Your task to perform on an android device: snooze an email in the gmail app Image 0: 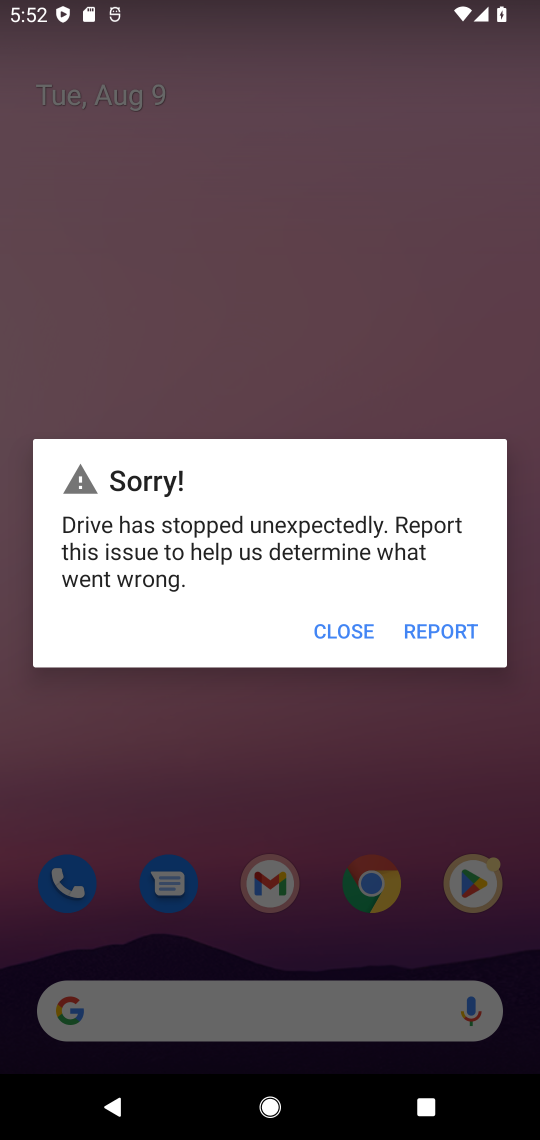
Step 0: click (345, 612)
Your task to perform on an android device: snooze an email in the gmail app Image 1: 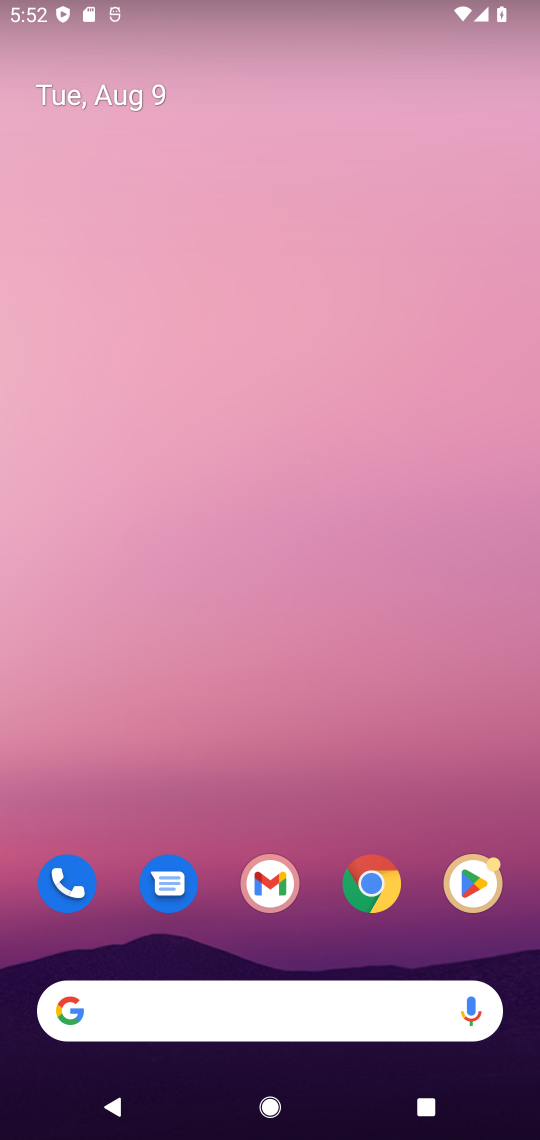
Step 1: click (263, 893)
Your task to perform on an android device: snooze an email in the gmail app Image 2: 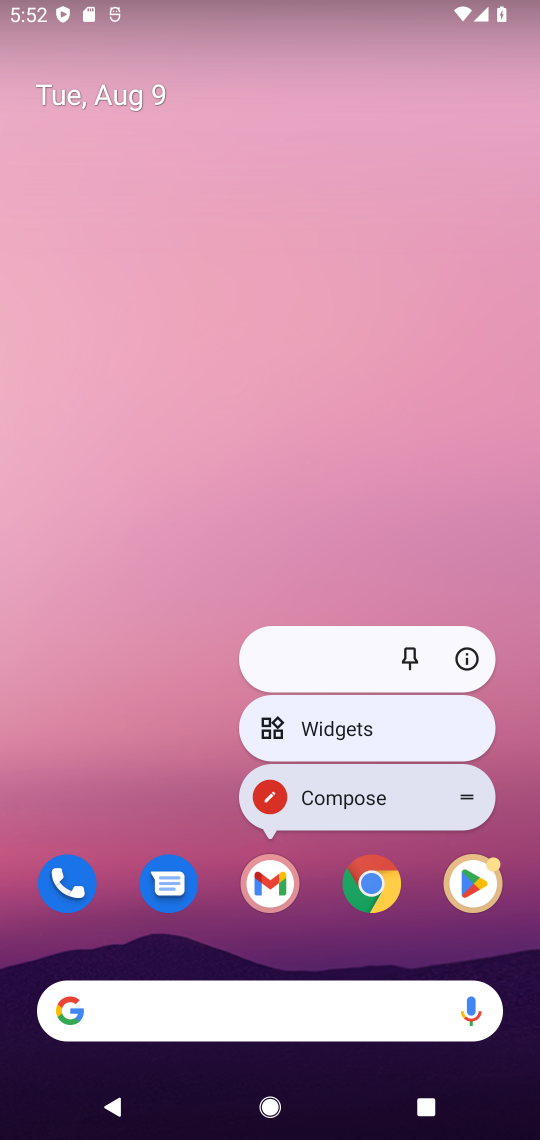
Step 2: click (253, 853)
Your task to perform on an android device: snooze an email in the gmail app Image 3: 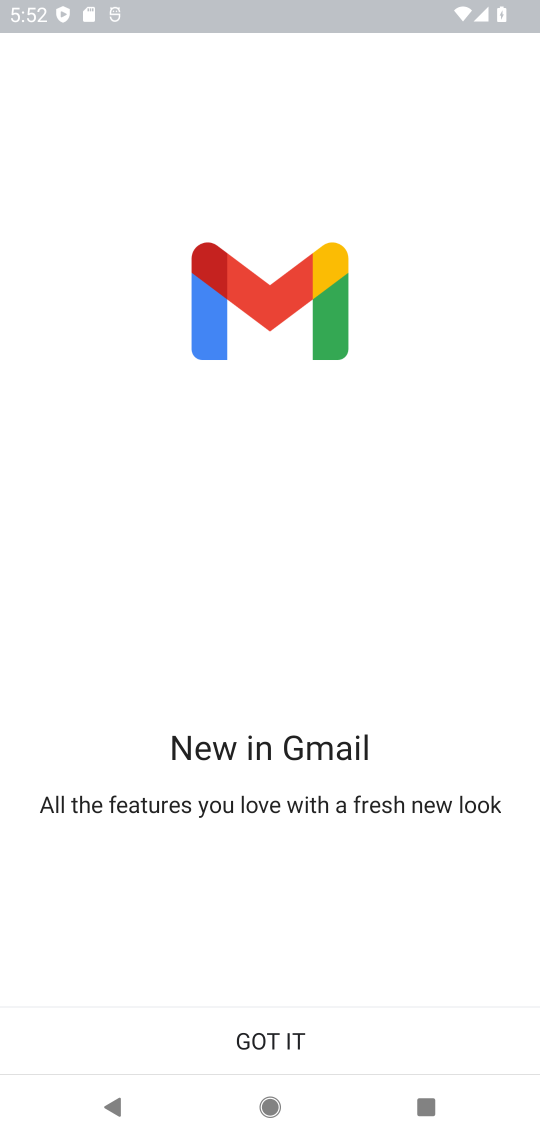
Step 3: click (355, 1033)
Your task to perform on an android device: snooze an email in the gmail app Image 4: 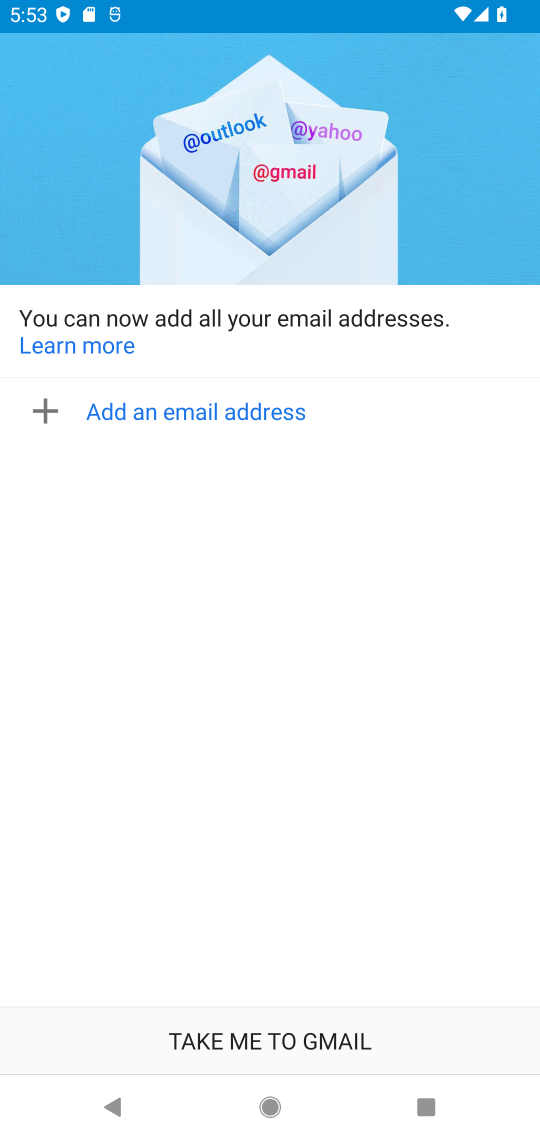
Step 4: click (353, 1022)
Your task to perform on an android device: snooze an email in the gmail app Image 5: 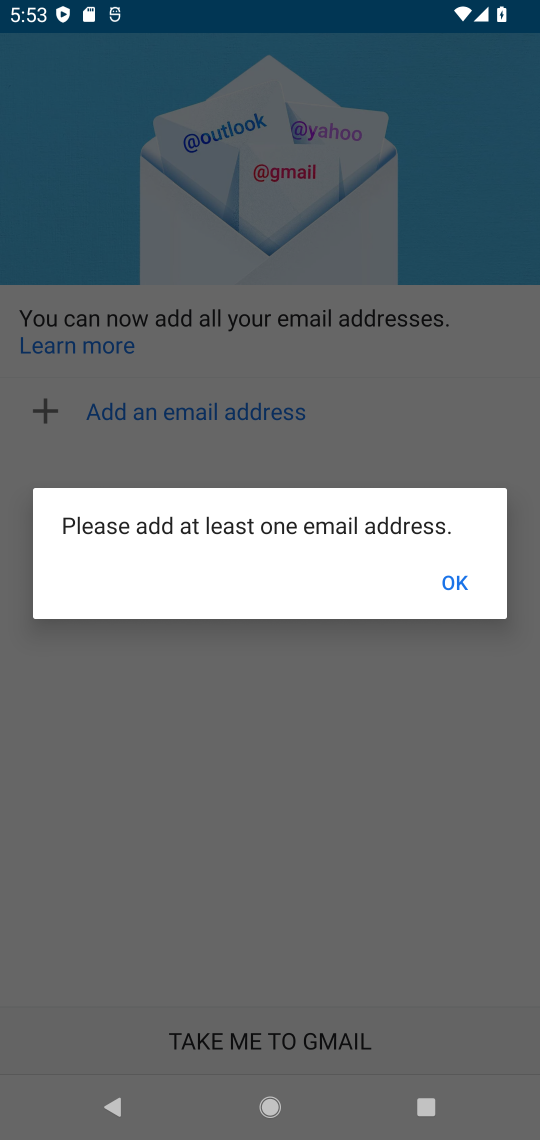
Step 5: click (447, 578)
Your task to perform on an android device: snooze an email in the gmail app Image 6: 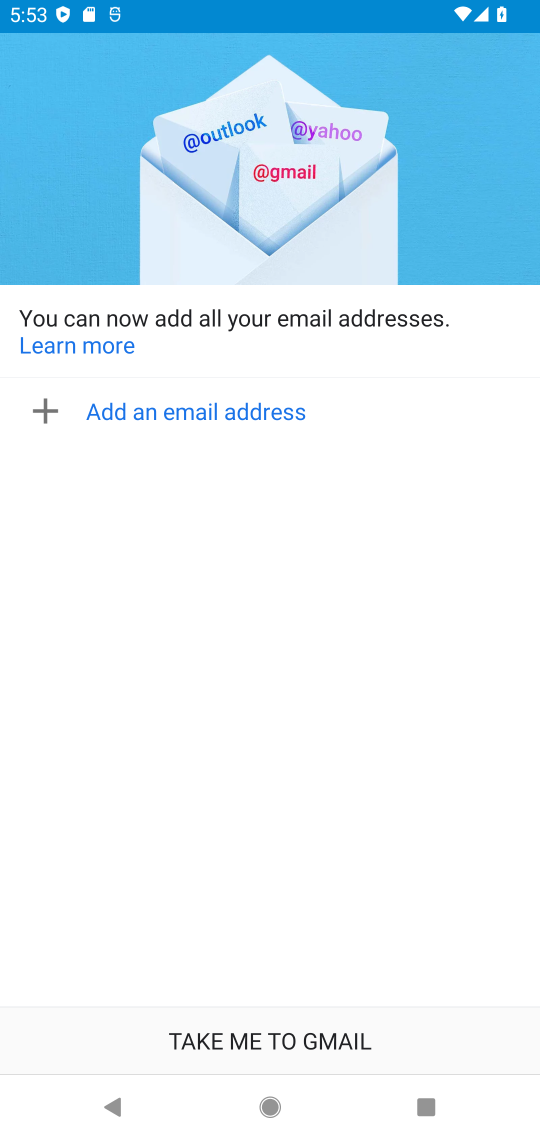
Step 6: click (319, 1031)
Your task to perform on an android device: snooze an email in the gmail app Image 7: 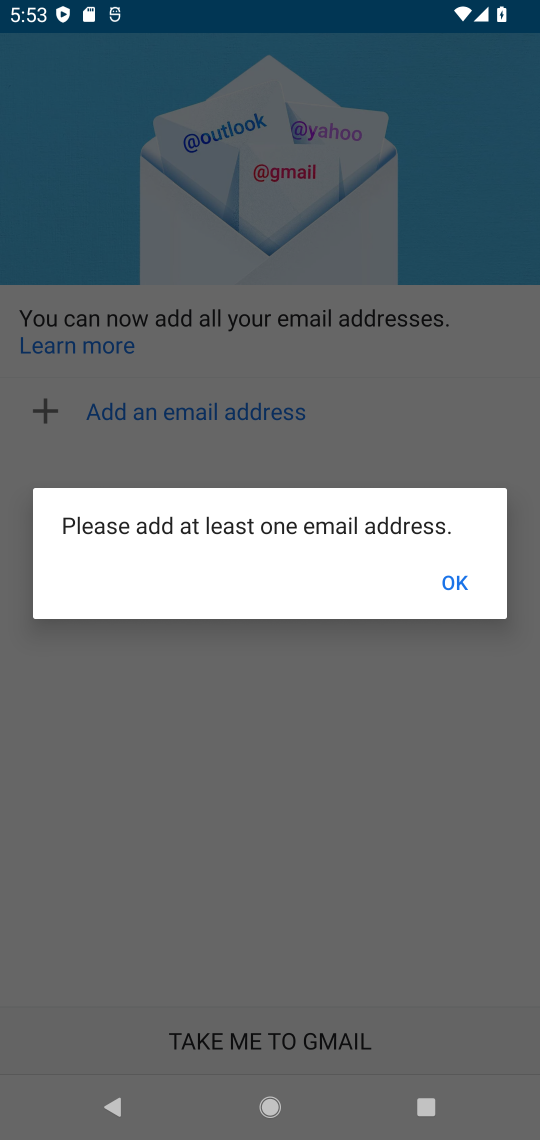
Step 7: click (462, 566)
Your task to perform on an android device: snooze an email in the gmail app Image 8: 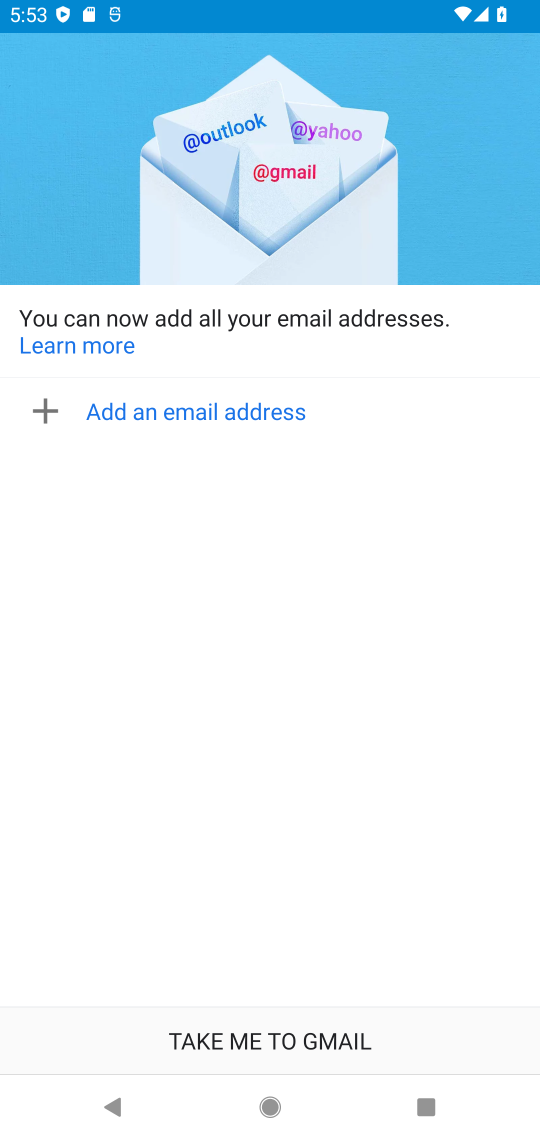
Step 8: task complete